Your task to perform on an android device: Open Chrome and go to settings Image 0: 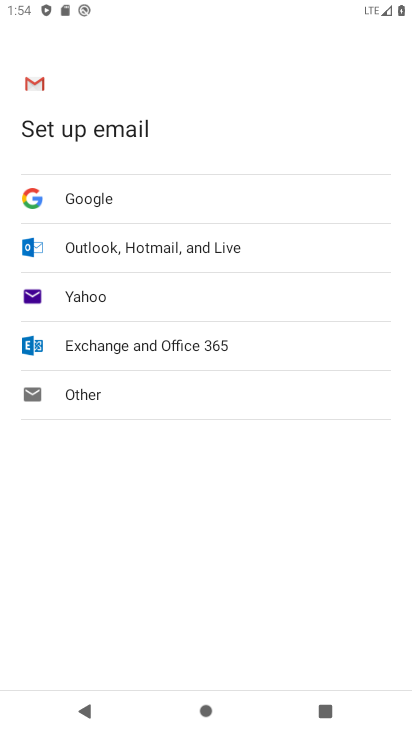
Step 0: press home button
Your task to perform on an android device: Open Chrome and go to settings Image 1: 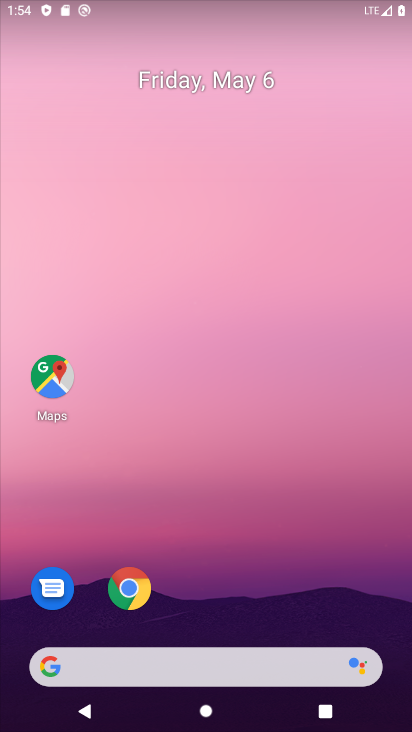
Step 1: drag from (385, 578) to (329, 0)
Your task to perform on an android device: Open Chrome and go to settings Image 2: 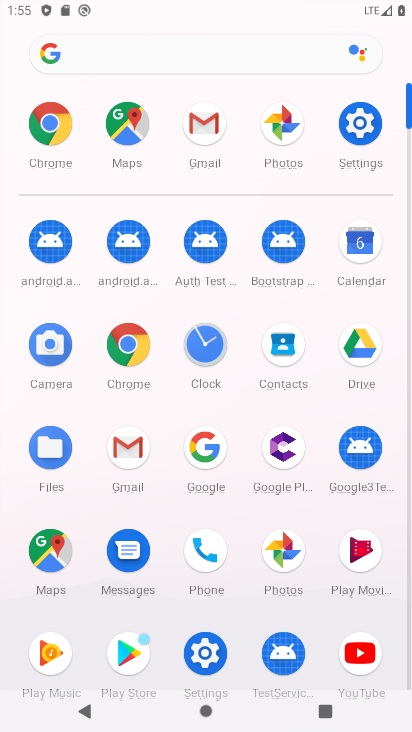
Step 2: click (134, 362)
Your task to perform on an android device: Open Chrome and go to settings Image 3: 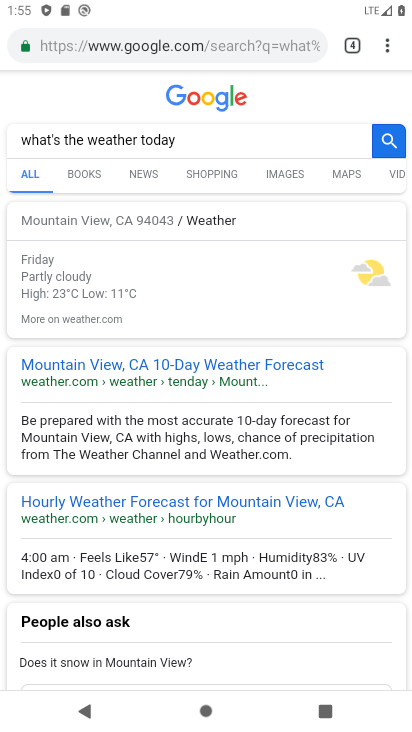
Step 3: task complete